Your task to perform on an android device: Is it going to rain today? Image 0: 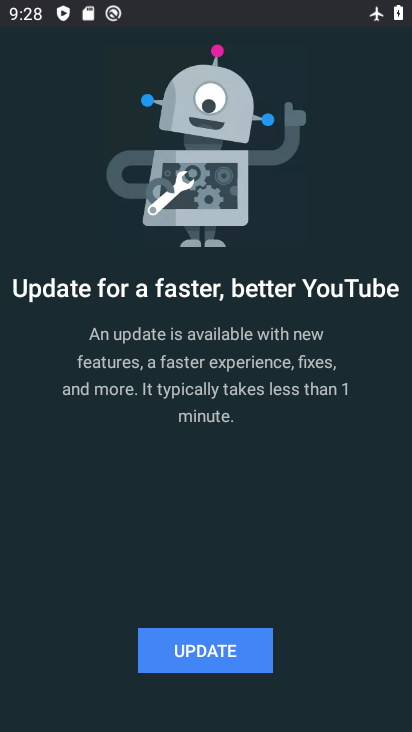
Step 0: press home button
Your task to perform on an android device: Is it going to rain today? Image 1: 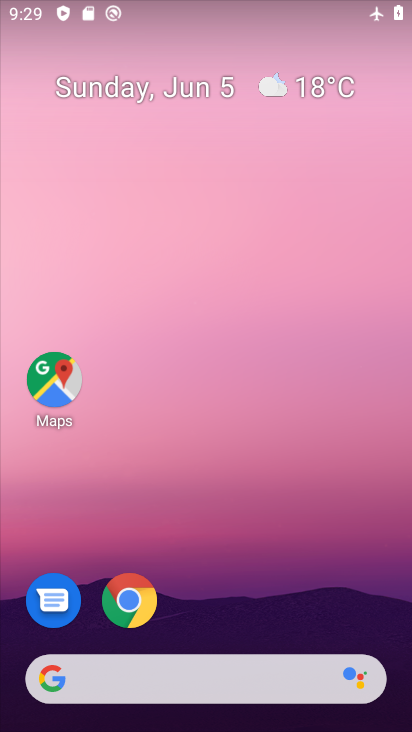
Step 1: click (343, 90)
Your task to perform on an android device: Is it going to rain today? Image 2: 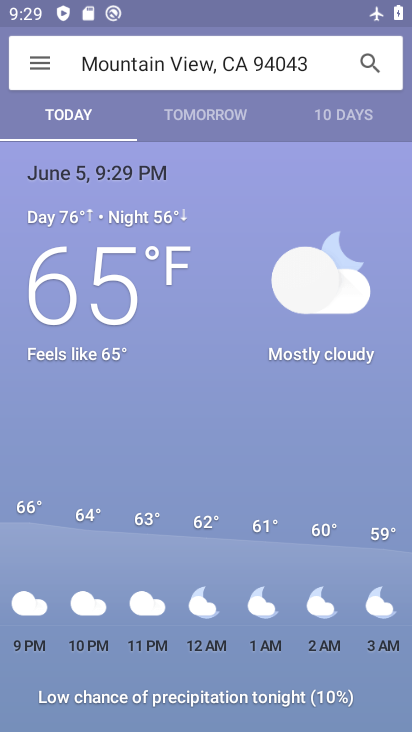
Step 2: task complete